Your task to perform on an android device: Open the calendar app, open the side menu, and click the "Day" option Image 0: 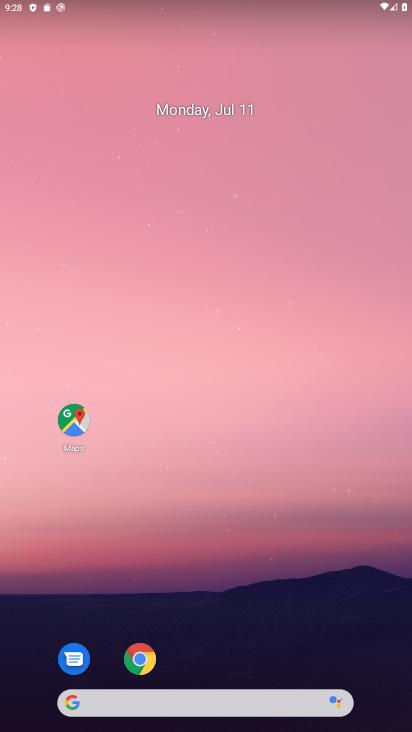
Step 0: drag from (338, 622) to (410, 214)
Your task to perform on an android device: Open the calendar app, open the side menu, and click the "Day" option Image 1: 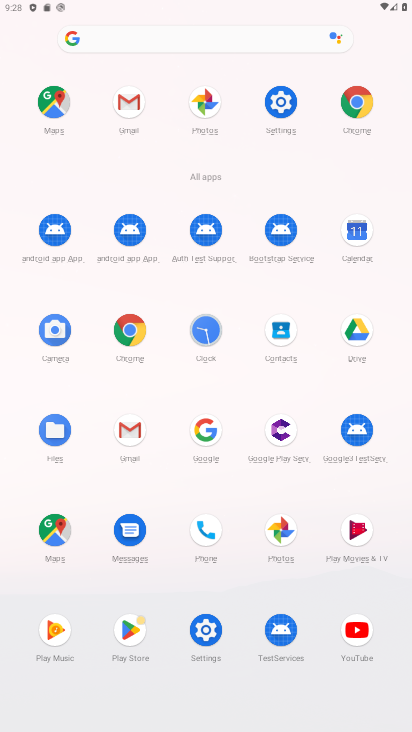
Step 1: click (356, 229)
Your task to perform on an android device: Open the calendar app, open the side menu, and click the "Day" option Image 2: 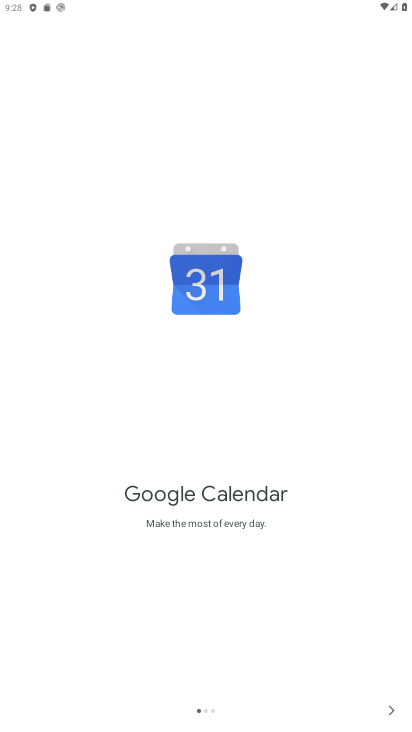
Step 2: click (390, 714)
Your task to perform on an android device: Open the calendar app, open the side menu, and click the "Day" option Image 3: 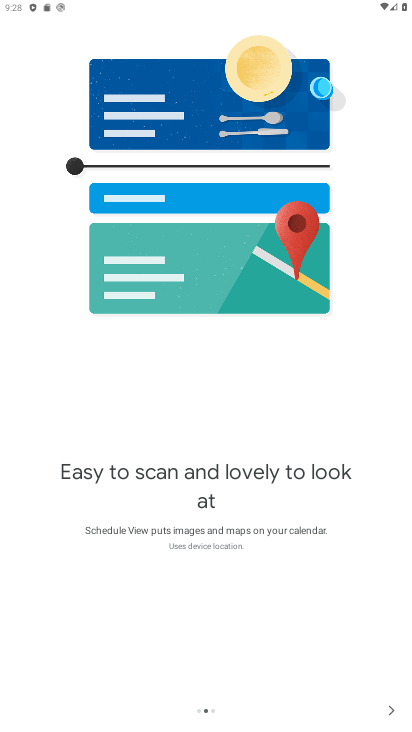
Step 3: click (404, 708)
Your task to perform on an android device: Open the calendar app, open the side menu, and click the "Day" option Image 4: 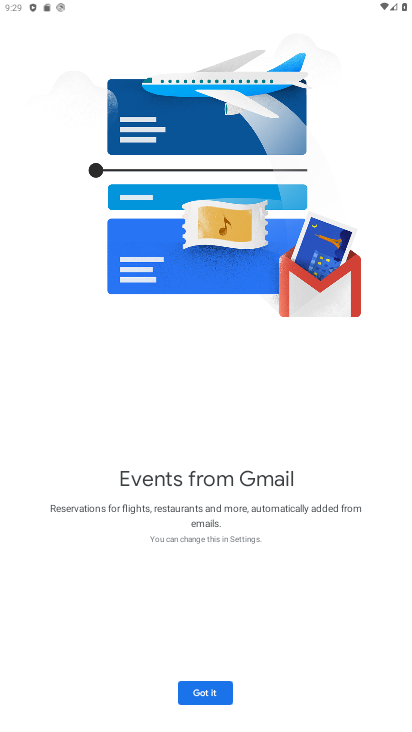
Step 4: click (206, 688)
Your task to perform on an android device: Open the calendar app, open the side menu, and click the "Day" option Image 5: 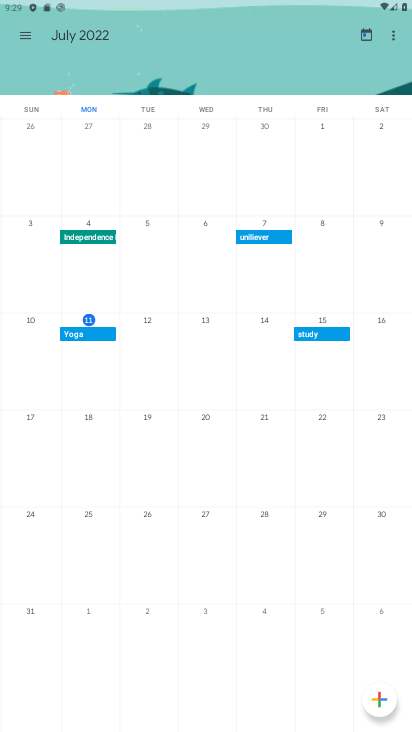
Step 5: click (26, 43)
Your task to perform on an android device: Open the calendar app, open the side menu, and click the "Day" option Image 6: 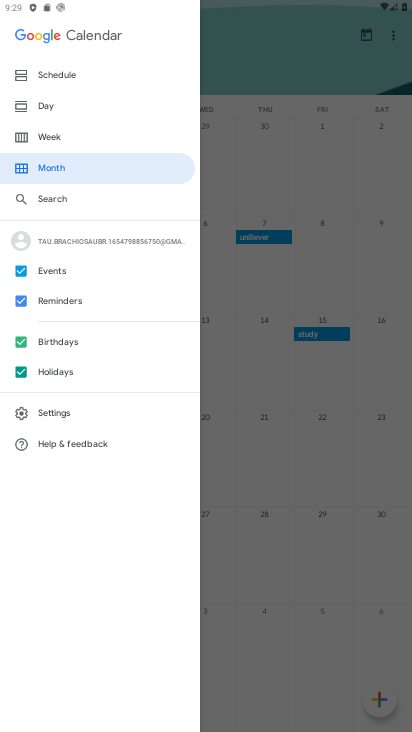
Step 6: click (39, 105)
Your task to perform on an android device: Open the calendar app, open the side menu, and click the "Day" option Image 7: 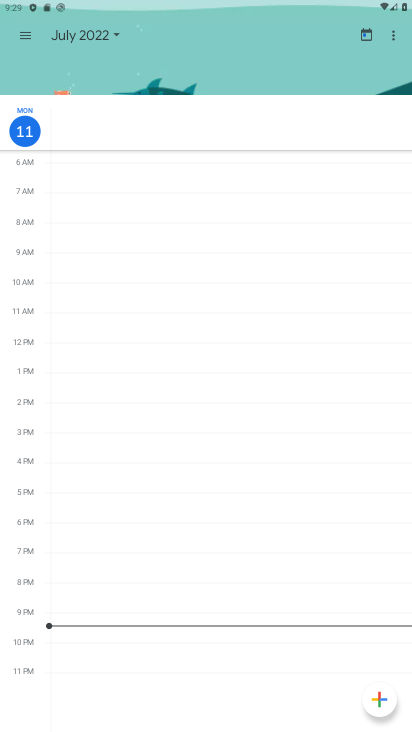
Step 7: task complete